Your task to perform on an android device: Open network settings Image 0: 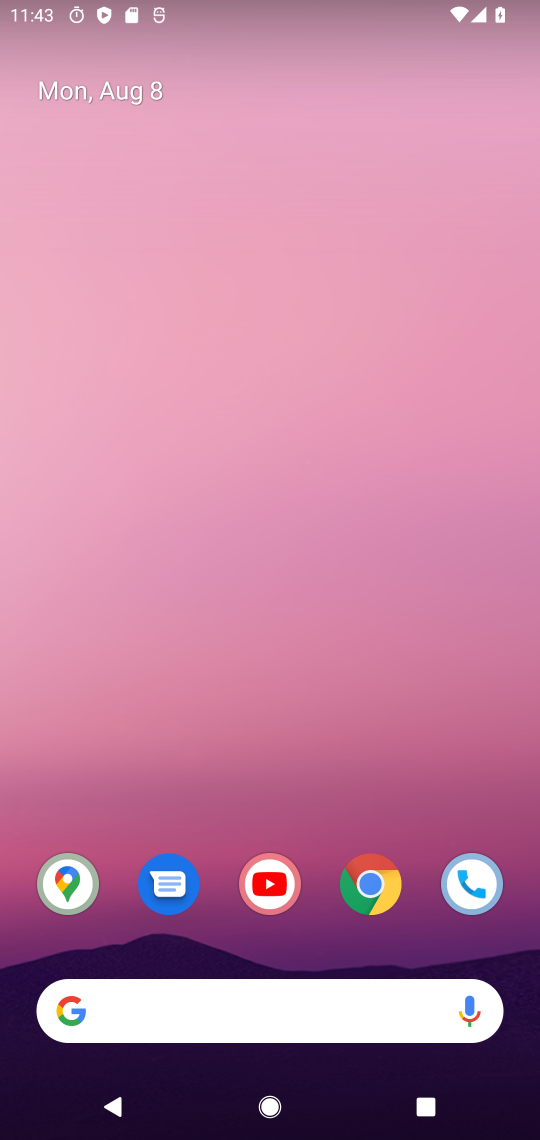
Step 0: drag from (208, 955) to (219, 59)
Your task to perform on an android device: Open network settings Image 1: 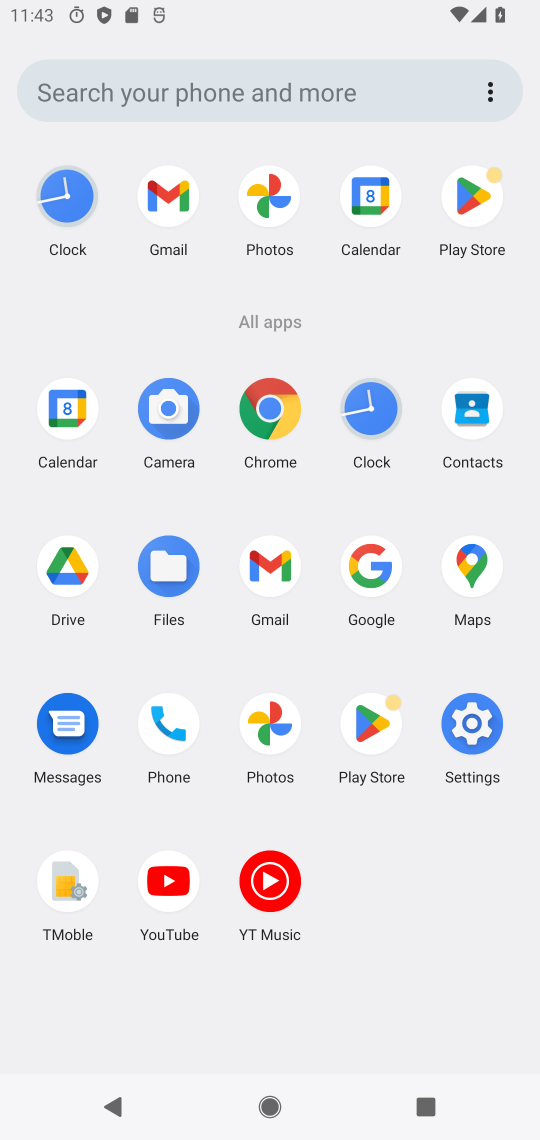
Step 1: click (471, 728)
Your task to perform on an android device: Open network settings Image 2: 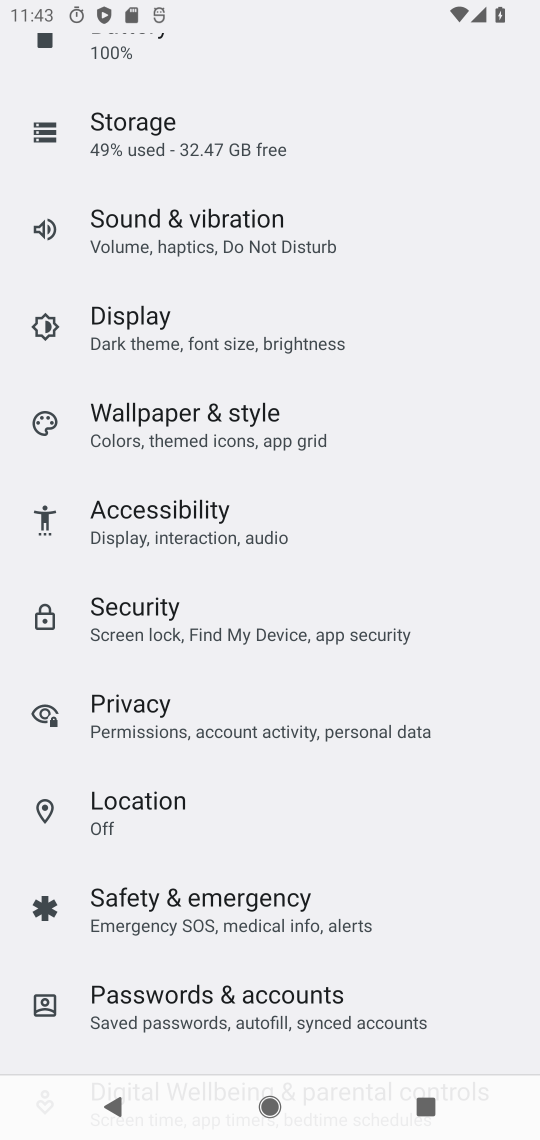
Step 2: click (259, 1089)
Your task to perform on an android device: Open network settings Image 3: 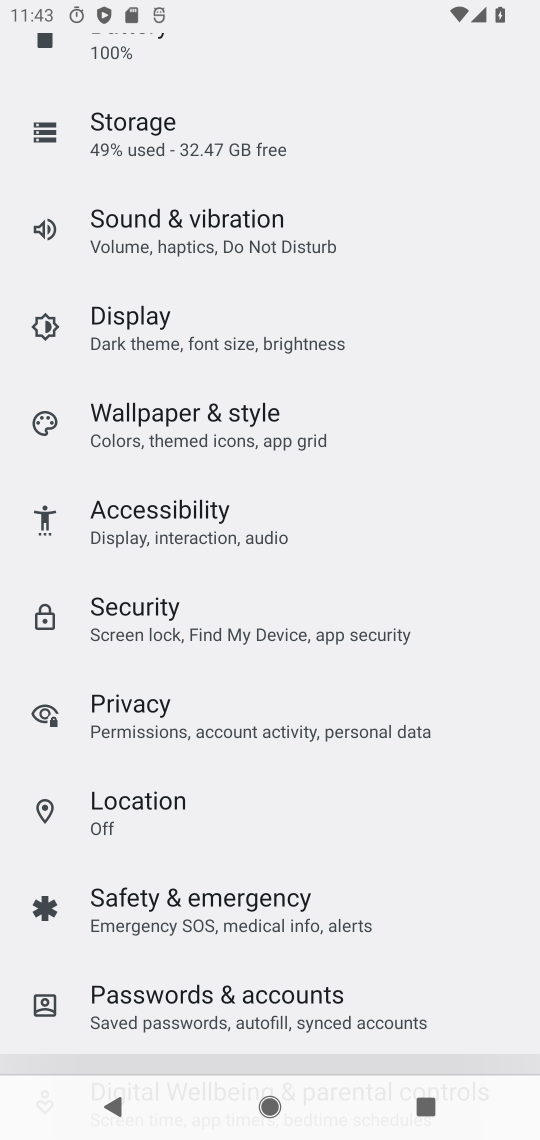
Step 3: drag from (271, 623) to (269, 975)
Your task to perform on an android device: Open network settings Image 4: 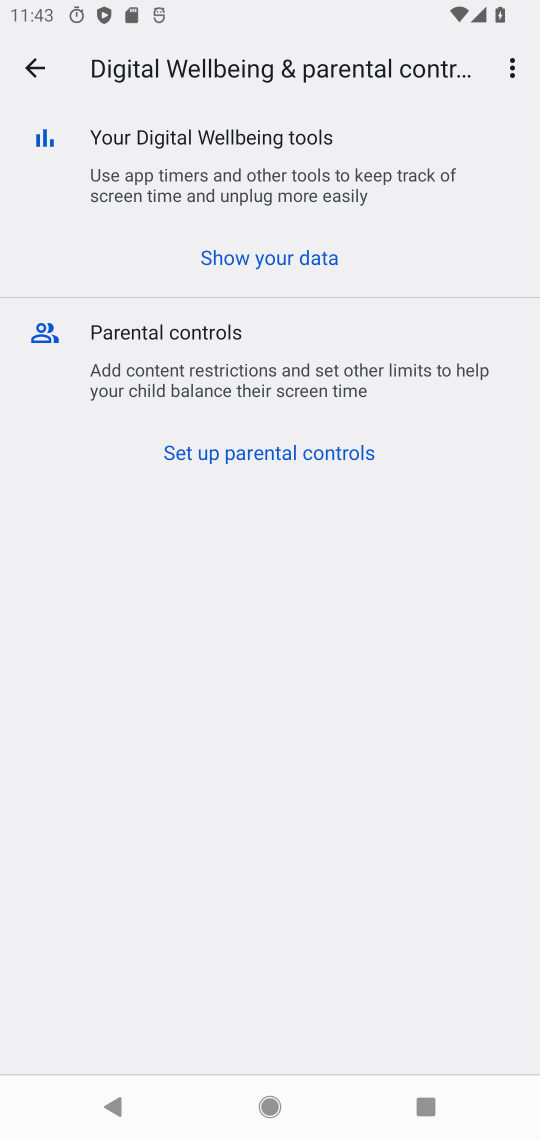
Step 4: press back button
Your task to perform on an android device: Open network settings Image 5: 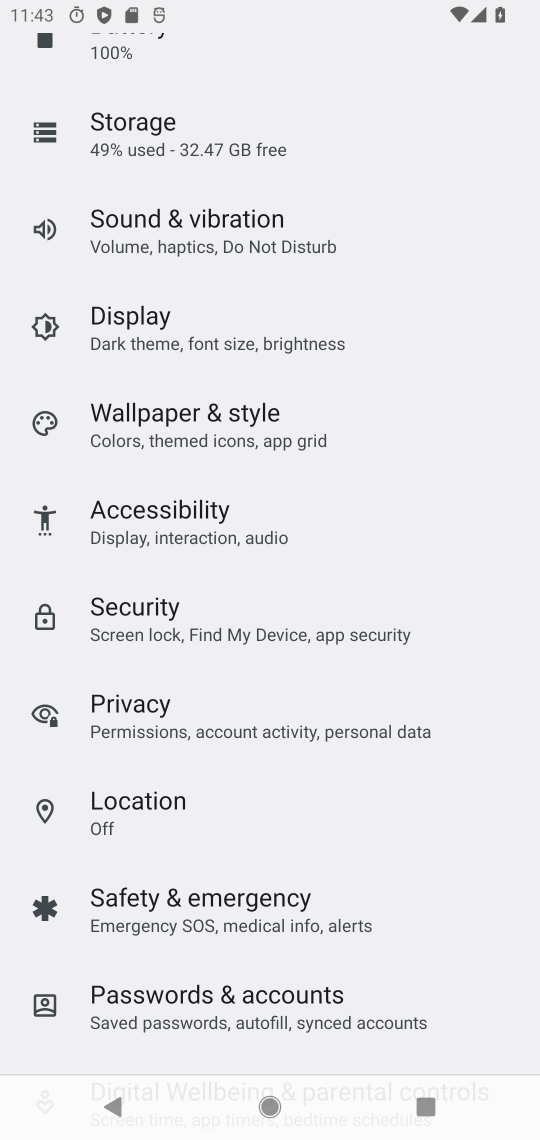
Step 5: drag from (237, 235) to (274, 1122)
Your task to perform on an android device: Open network settings Image 6: 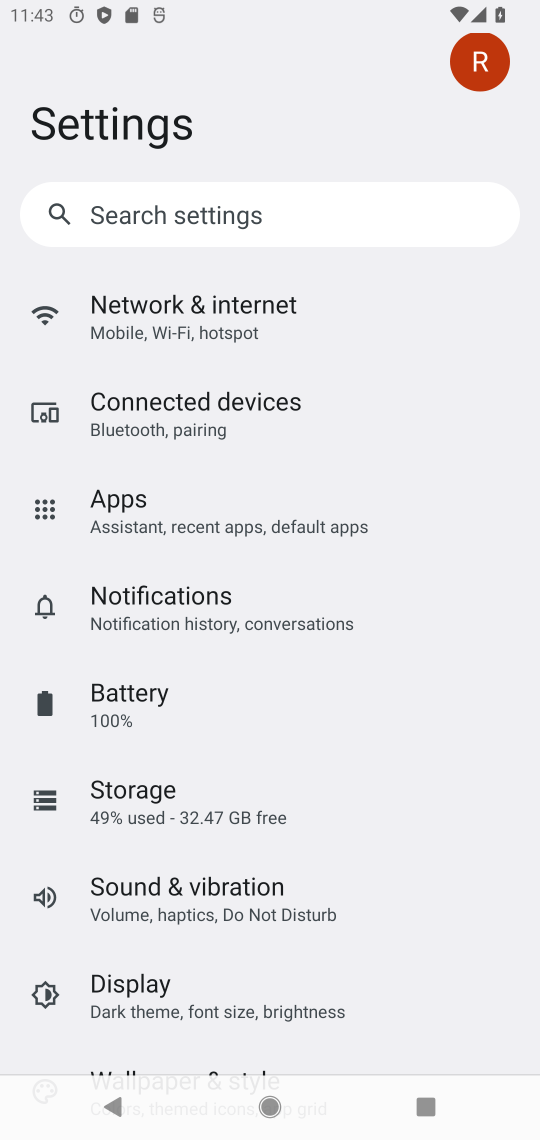
Step 6: click (257, 270)
Your task to perform on an android device: Open network settings Image 7: 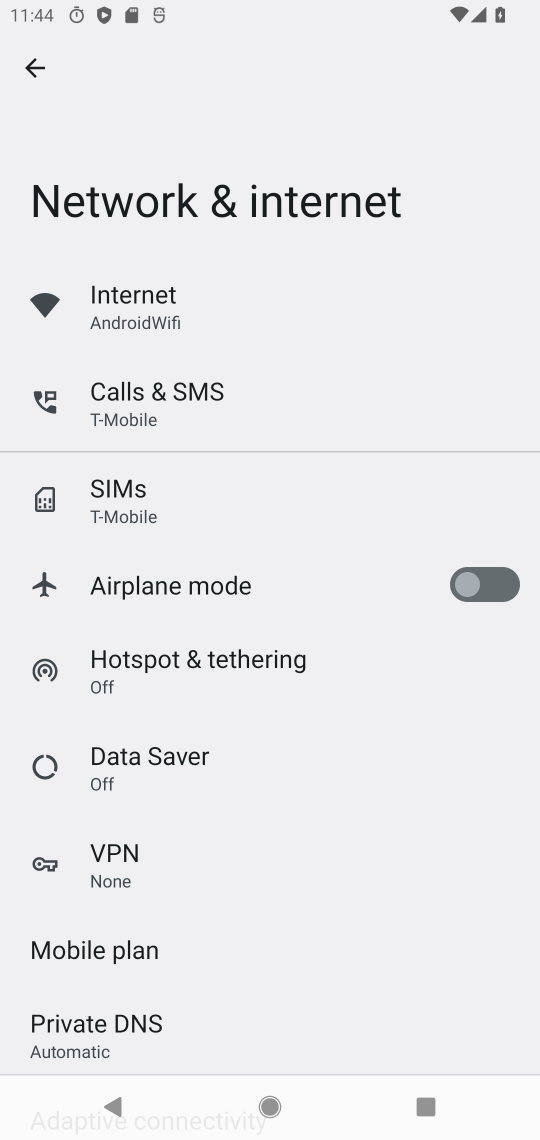
Step 7: task complete